Your task to perform on an android device: visit the assistant section in the google photos Image 0: 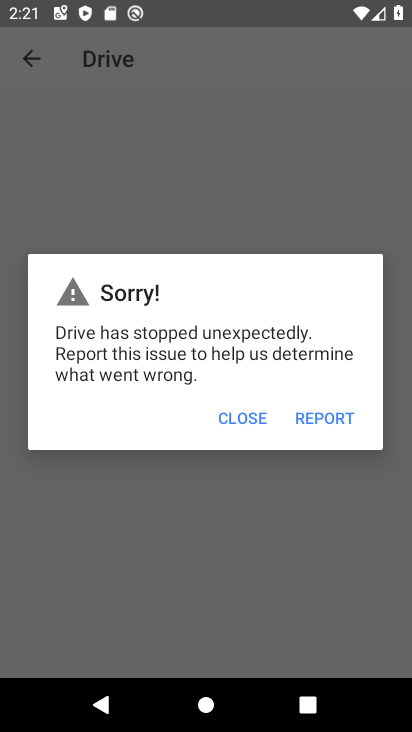
Step 0: press home button
Your task to perform on an android device: visit the assistant section in the google photos Image 1: 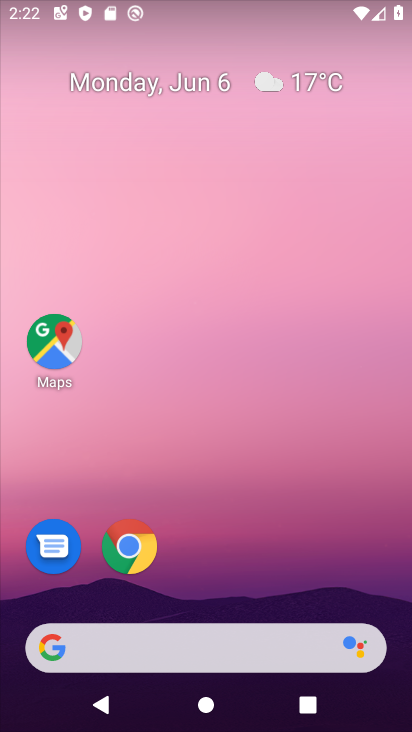
Step 1: drag from (266, 568) to (330, 155)
Your task to perform on an android device: visit the assistant section in the google photos Image 2: 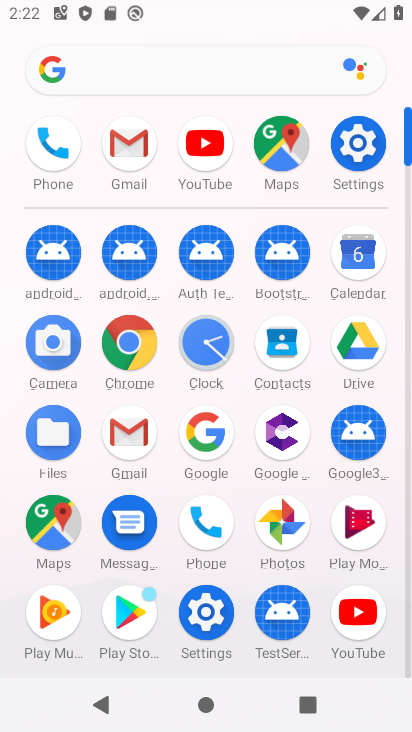
Step 2: click (292, 532)
Your task to perform on an android device: visit the assistant section in the google photos Image 3: 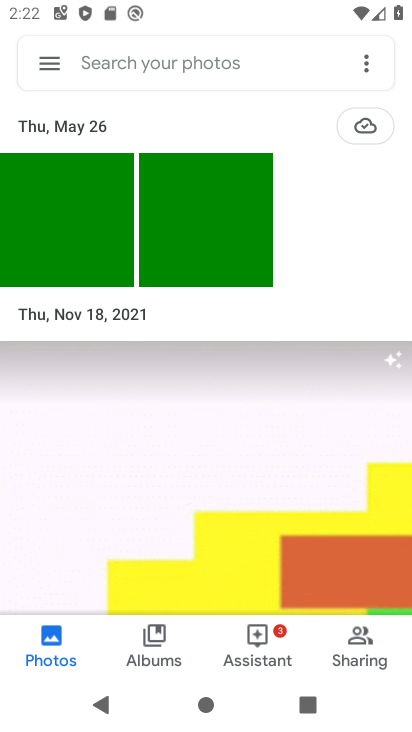
Step 3: click (264, 628)
Your task to perform on an android device: visit the assistant section in the google photos Image 4: 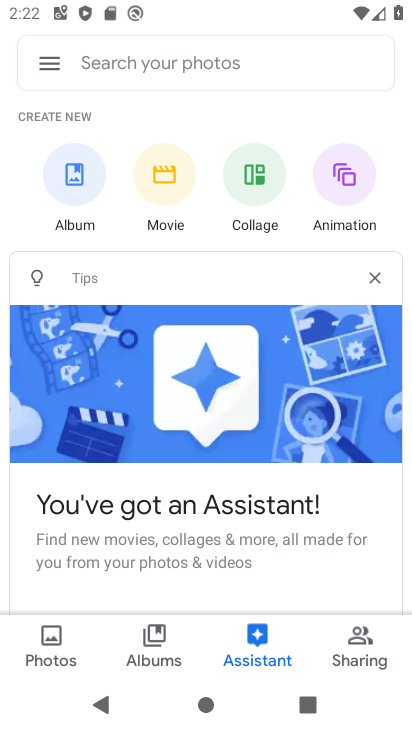
Step 4: task complete